Your task to perform on an android device: Go to battery settings Image 0: 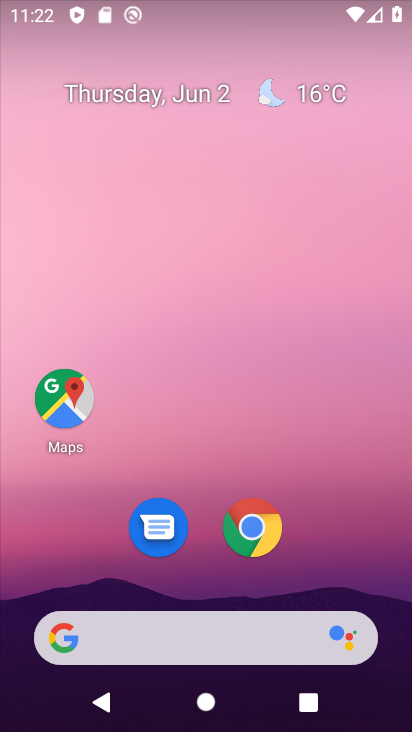
Step 0: drag from (168, 662) to (156, 92)
Your task to perform on an android device: Go to battery settings Image 1: 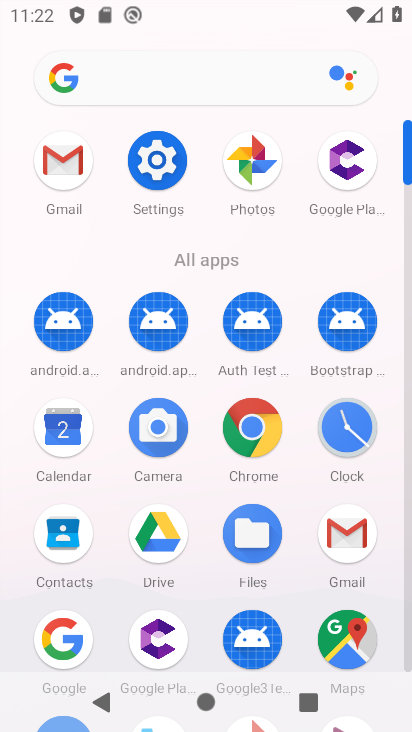
Step 1: click (170, 181)
Your task to perform on an android device: Go to battery settings Image 2: 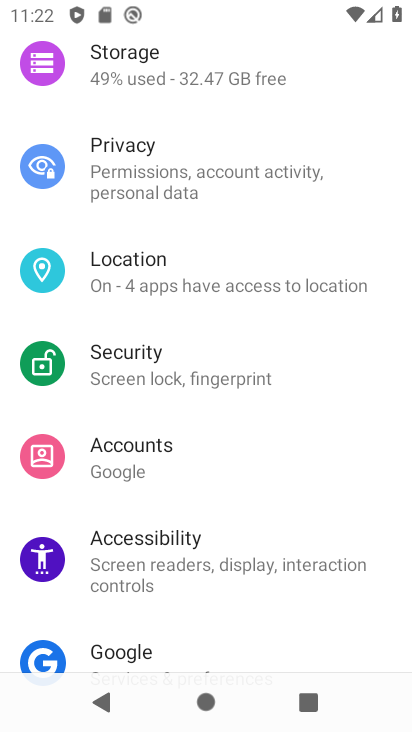
Step 2: drag from (172, 156) to (151, 470)
Your task to perform on an android device: Go to battery settings Image 3: 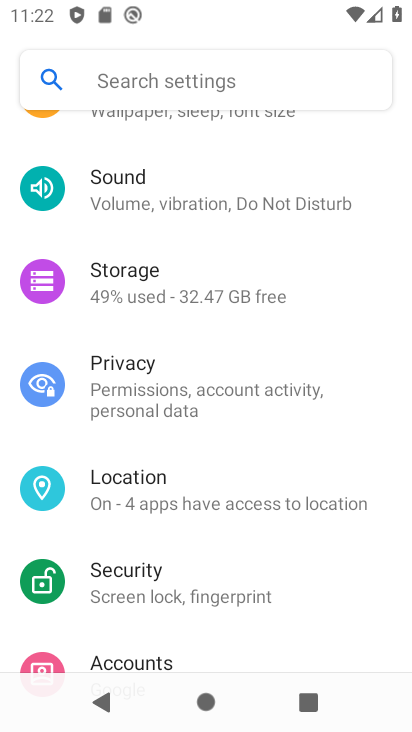
Step 3: drag from (170, 233) to (127, 730)
Your task to perform on an android device: Go to battery settings Image 4: 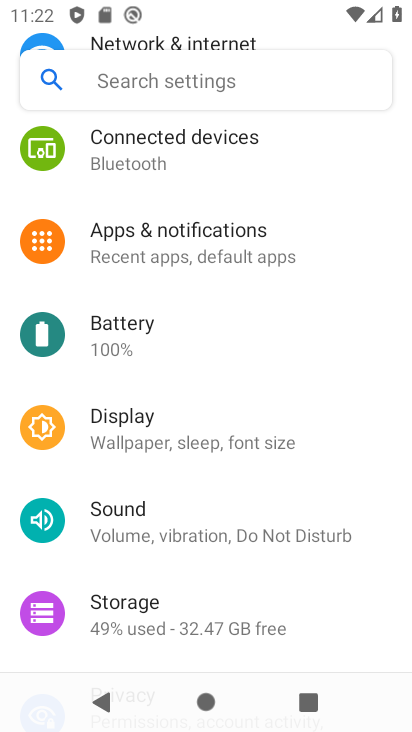
Step 4: click (144, 338)
Your task to perform on an android device: Go to battery settings Image 5: 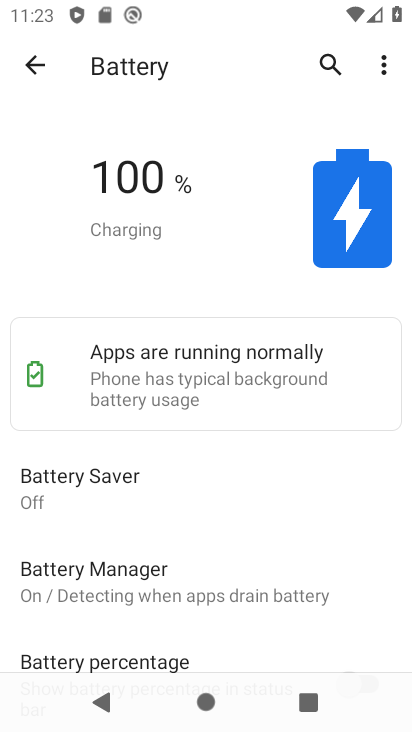
Step 5: task complete